Your task to perform on an android device: turn on sleep mode Image 0: 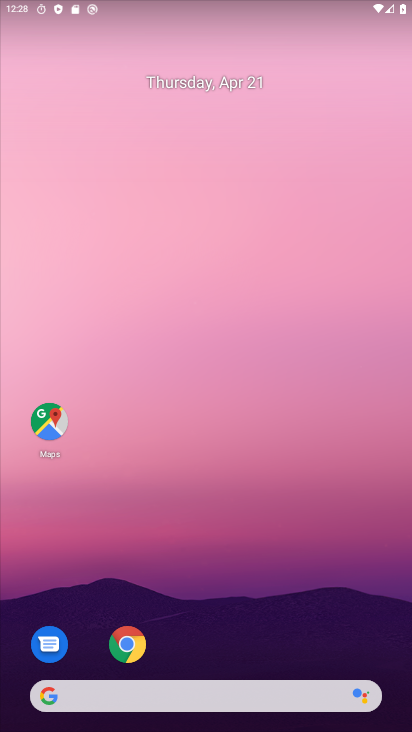
Step 0: drag from (216, 637) to (270, 201)
Your task to perform on an android device: turn on sleep mode Image 1: 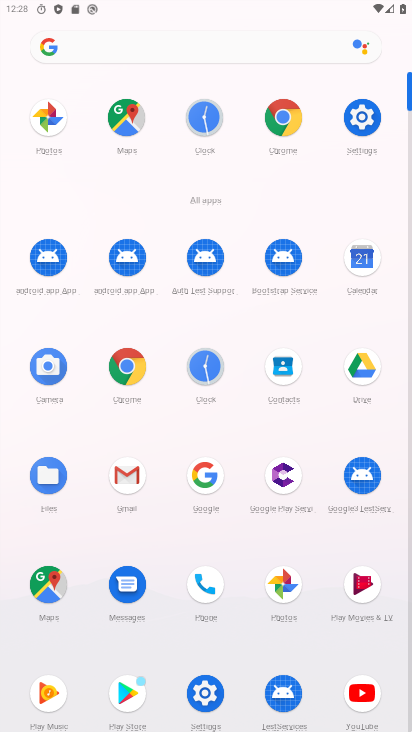
Step 1: click (357, 127)
Your task to perform on an android device: turn on sleep mode Image 2: 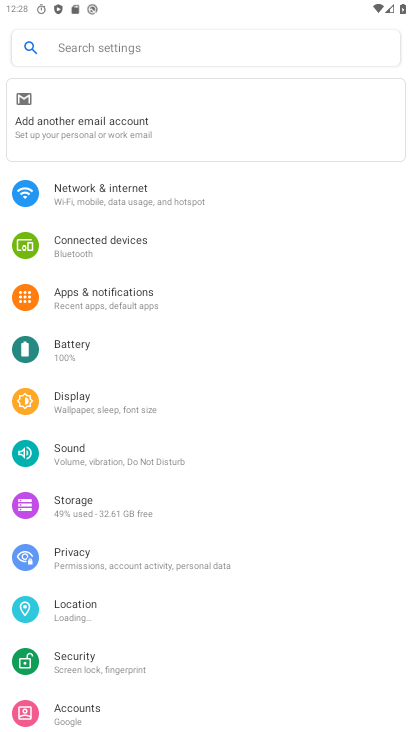
Step 2: click (109, 43)
Your task to perform on an android device: turn on sleep mode Image 3: 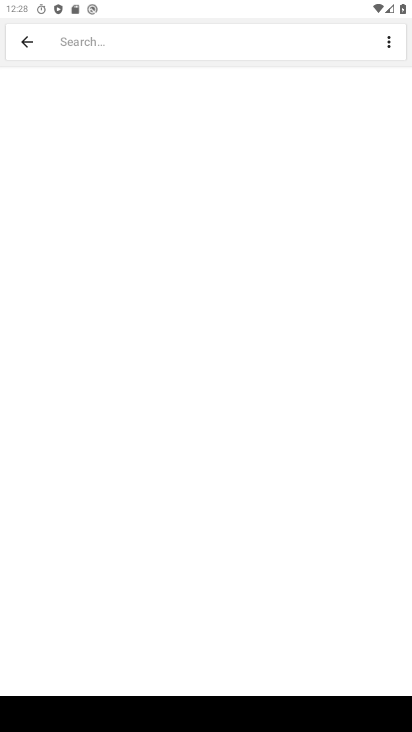
Step 3: type "sleep mode"
Your task to perform on an android device: turn on sleep mode Image 4: 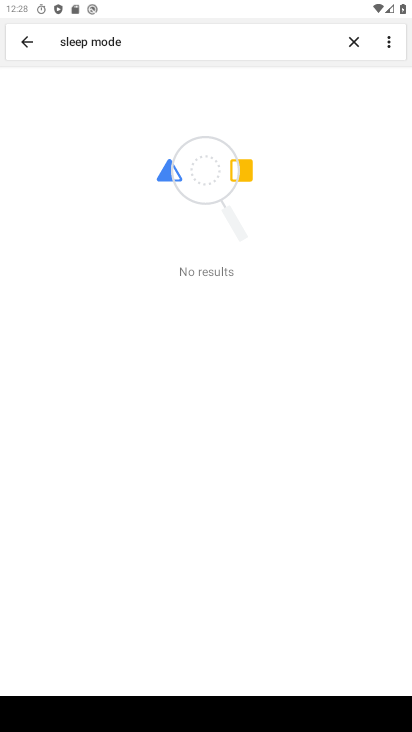
Step 4: task complete